Your task to perform on an android device: Open Youtube and go to "Your channel" Image 0: 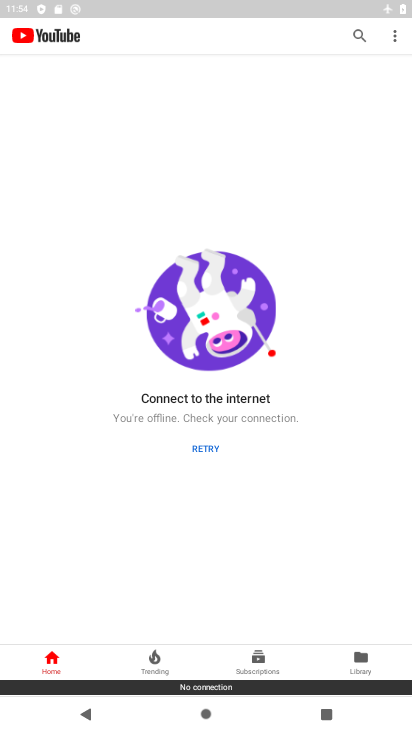
Step 0: press home button
Your task to perform on an android device: Open Youtube and go to "Your channel" Image 1: 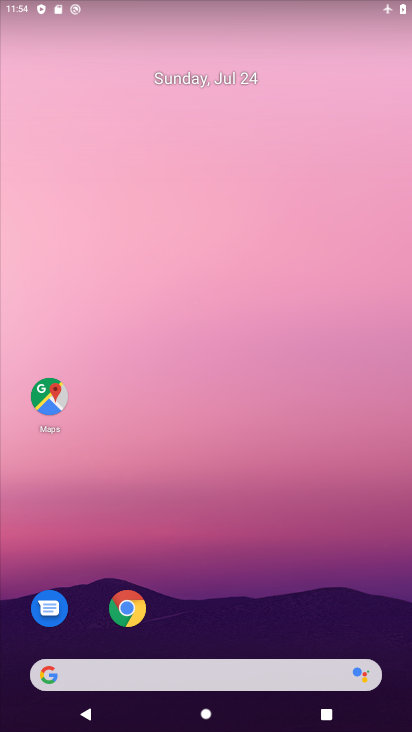
Step 1: drag from (176, 605) to (181, 198)
Your task to perform on an android device: Open Youtube and go to "Your channel" Image 2: 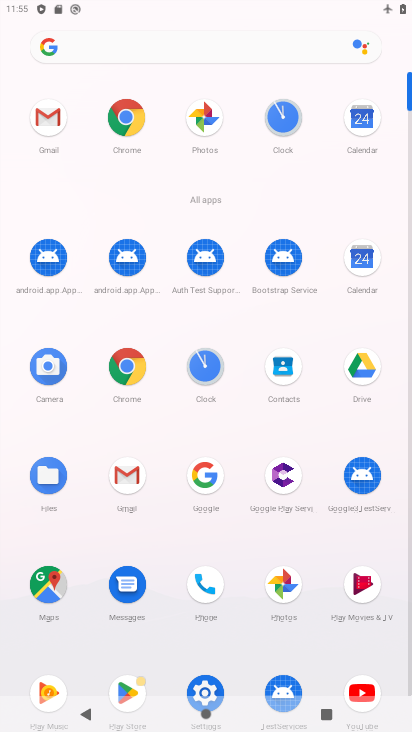
Step 2: click (311, 383)
Your task to perform on an android device: Open Youtube and go to "Your channel" Image 3: 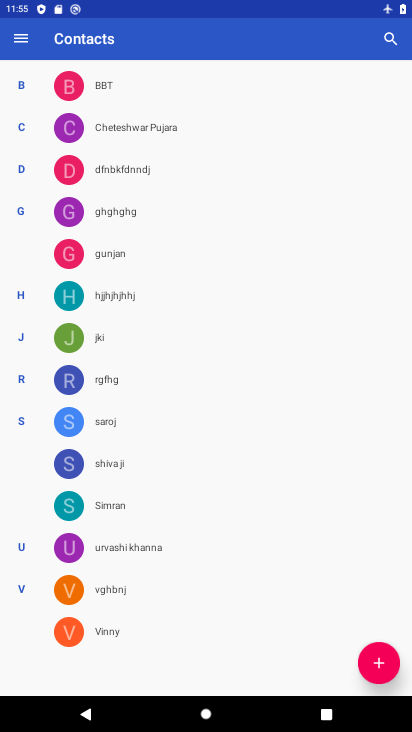
Step 3: press home button
Your task to perform on an android device: Open Youtube and go to "Your channel" Image 4: 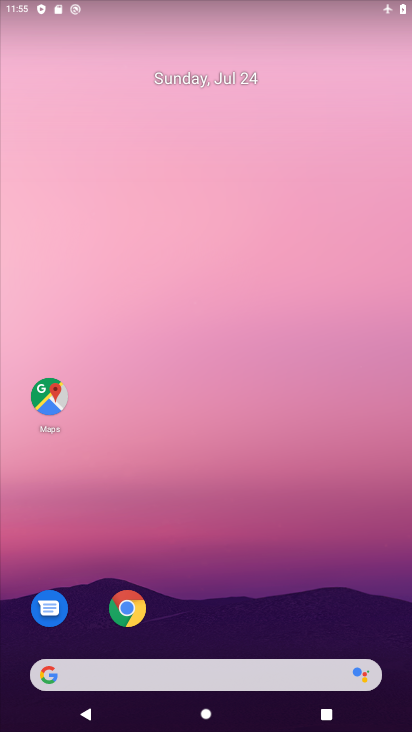
Step 4: drag from (224, 623) to (202, 230)
Your task to perform on an android device: Open Youtube and go to "Your channel" Image 5: 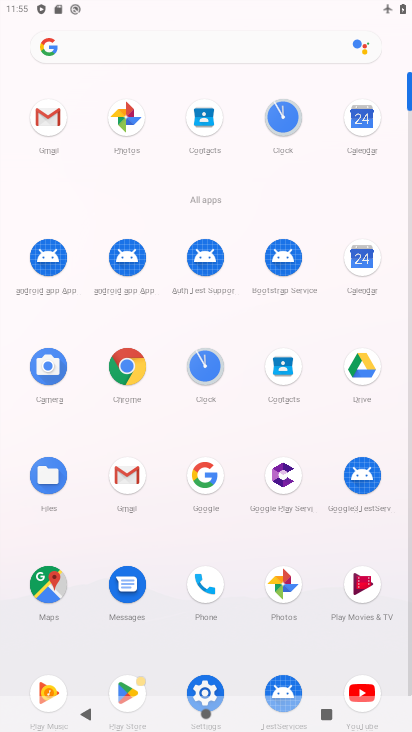
Step 5: click (358, 679)
Your task to perform on an android device: Open Youtube and go to "Your channel" Image 6: 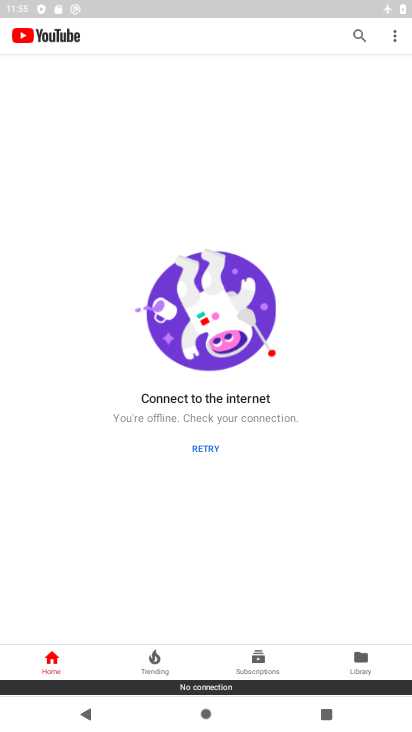
Step 6: click (388, 37)
Your task to perform on an android device: Open Youtube and go to "Your channel" Image 7: 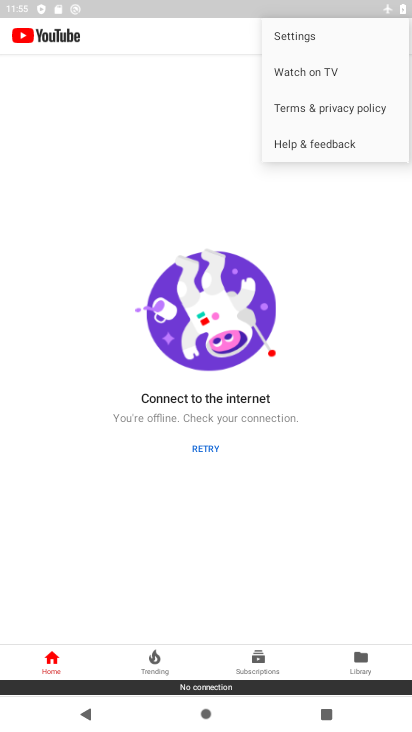
Step 7: task complete